Your task to perform on an android device: show emergency info Image 0: 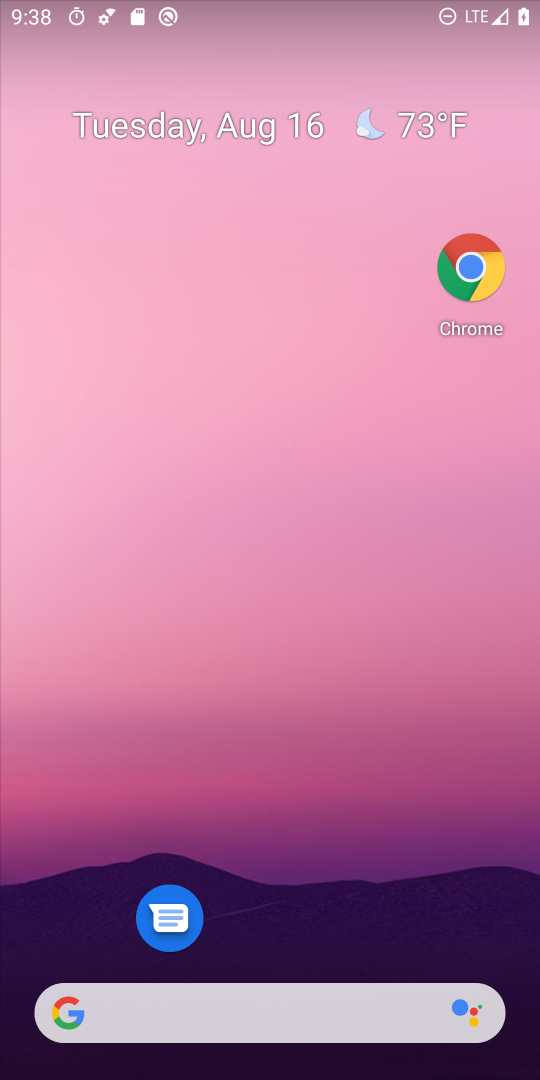
Step 0: drag from (358, 1016) to (394, 416)
Your task to perform on an android device: show emergency info Image 1: 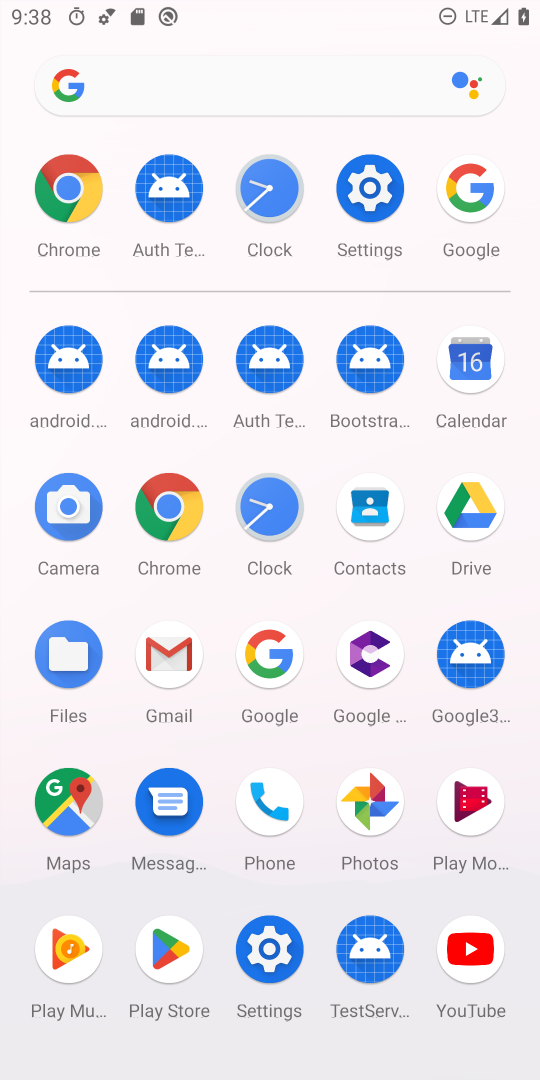
Step 1: click (379, 210)
Your task to perform on an android device: show emergency info Image 2: 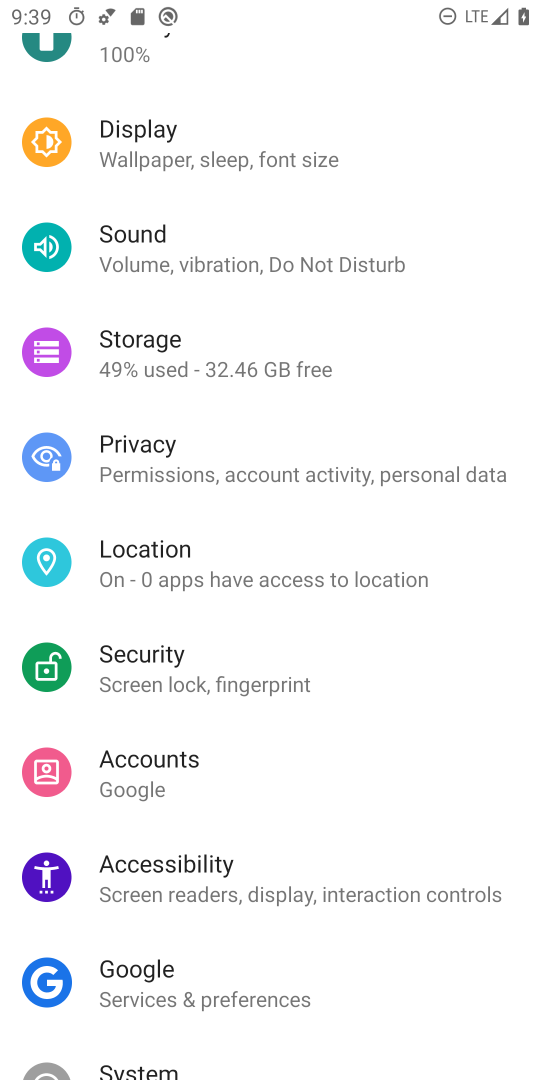
Step 2: drag from (182, 731) to (168, 439)
Your task to perform on an android device: show emergency info Image 3: 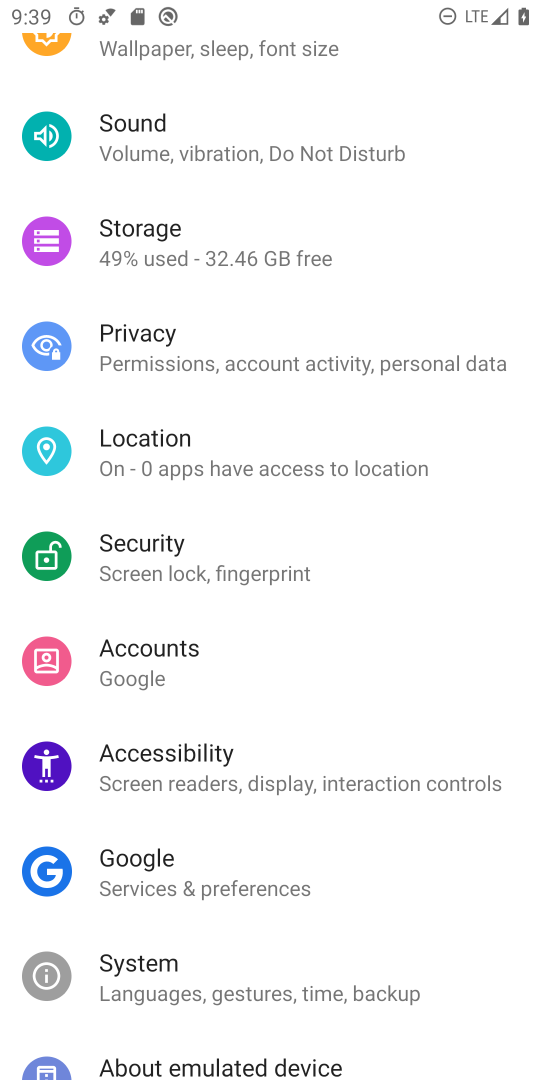
Step 3: drag from (228, 875) to (222, 184)
Your task to perform on an android device: show emergency info Image 4: 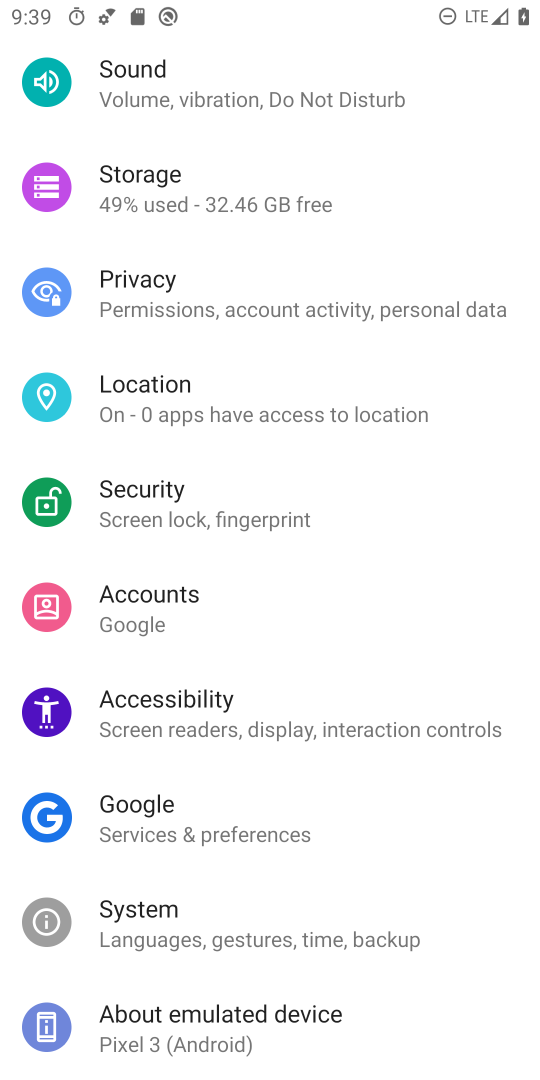
Step 4: click (219, 1015)
Your task to perform on an android device: show emergency info Image 5: 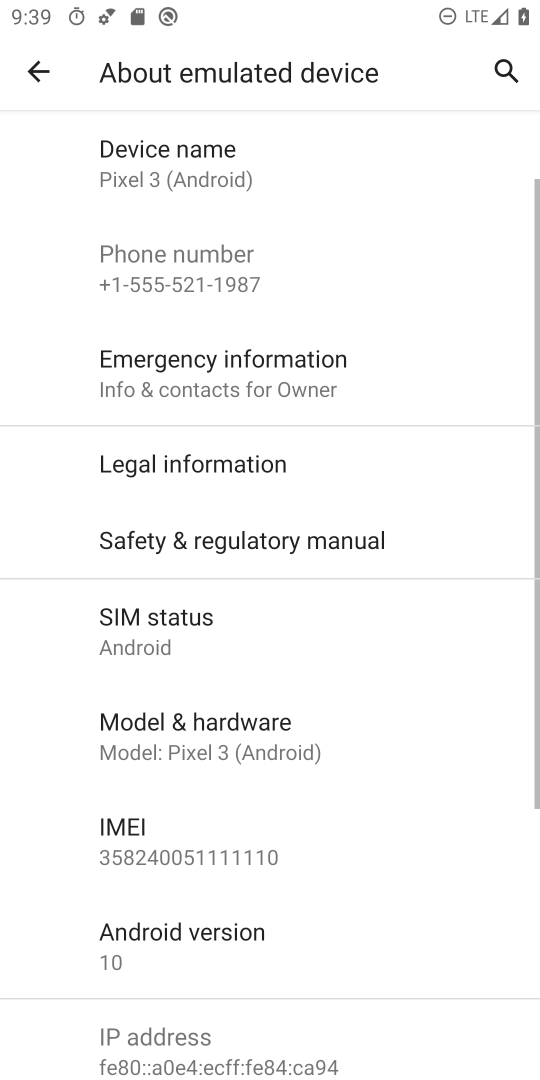
Step 5: click (235, 370)
Your task to perform on an android device: show emergency info Image 6: 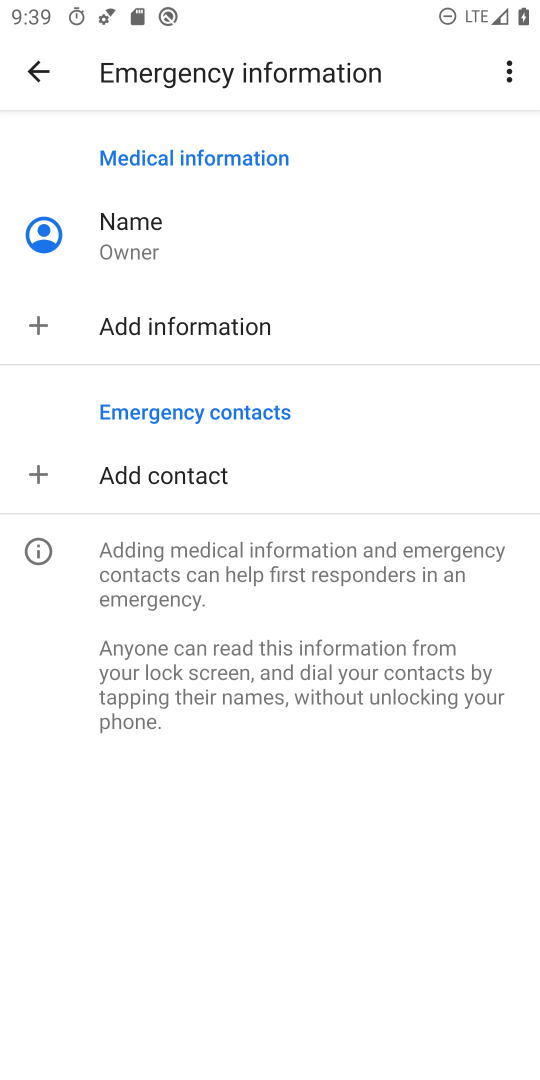
Step 6: task complete